Your task to perform on an android device: toggle data saver in the chrome app Image 0: 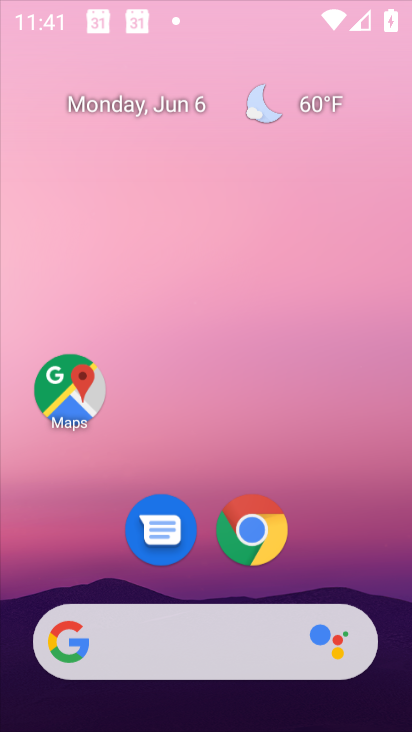
Step 0: press home button
Your task to perform on an android device: toggle data saver in the chrome app Image 1: 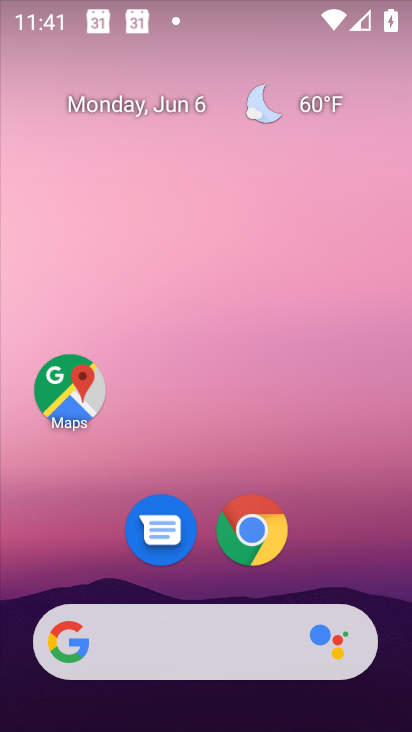
Step 1: click (258, 531)
Your task to perform on an android device: toggle data saver in the chrome app Image 2: 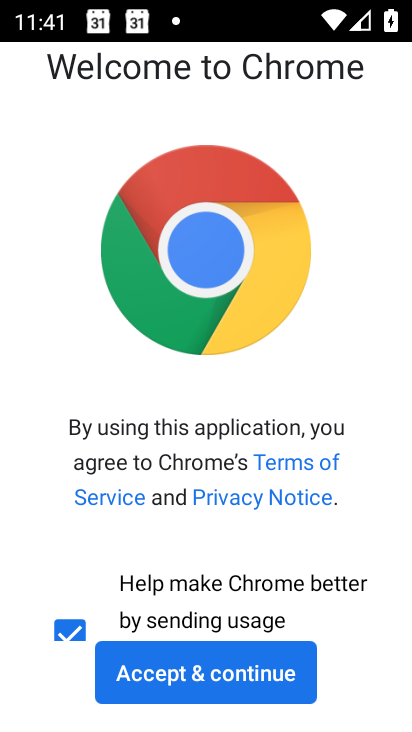
Step 2: click (260, 683)
Your task to perform on an android device: toggle data saver in the chrome app Image 3: 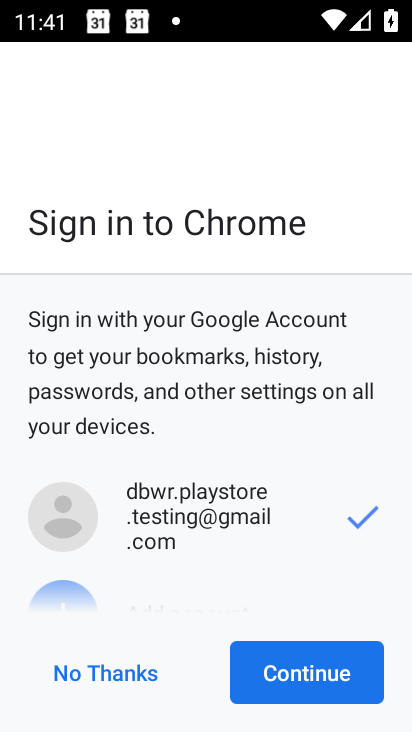
Step 3: click (330, 675)
Your task to perform on an android device: toggle data saver in the chrome app Image 4: 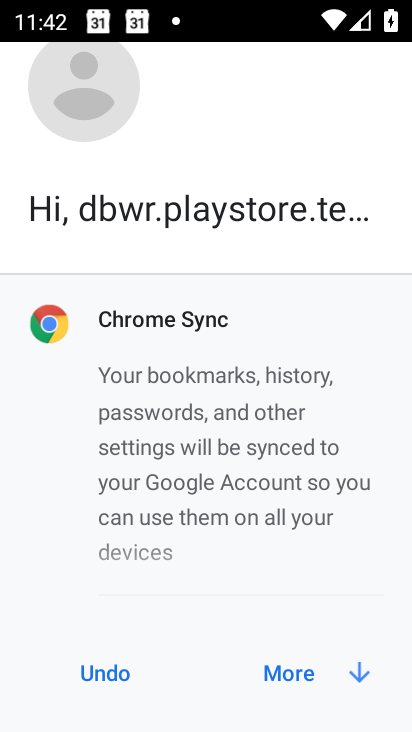
Step 4: click (303, 662)
Your task to perform on an android device: toggle data saver in the chrome app Image 5: 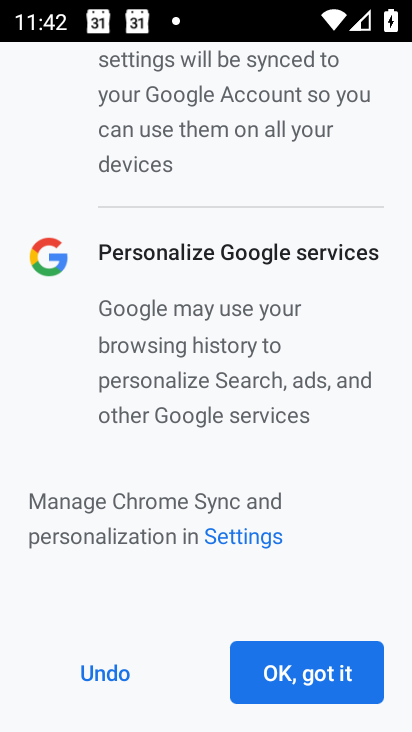
Step 5: click (308, 663)
Your task to perform on an android device: toggle data saver in the chrome app Image 6: 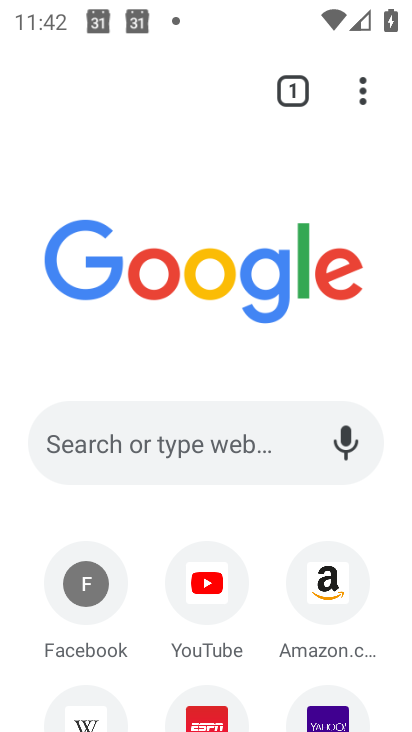
Step 6: click (359, 79)
Your task to perform on an android device: toggle data saver in the chrome app Image 7: 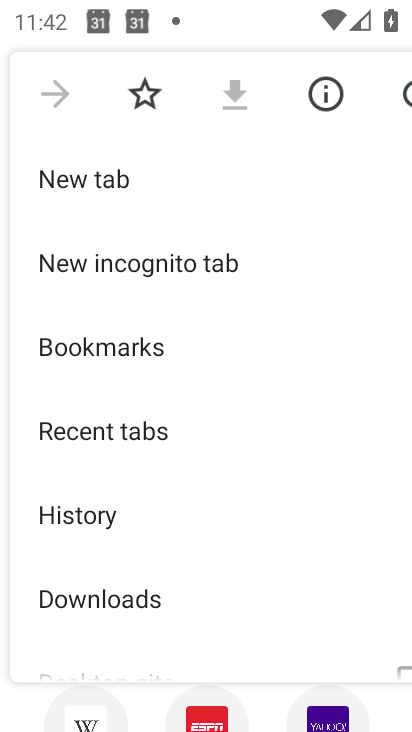
Step 7: drag from (241, 573) to (288, 104)
Your task to perform on an android device: toggle data saver in the chrome app Image 8: 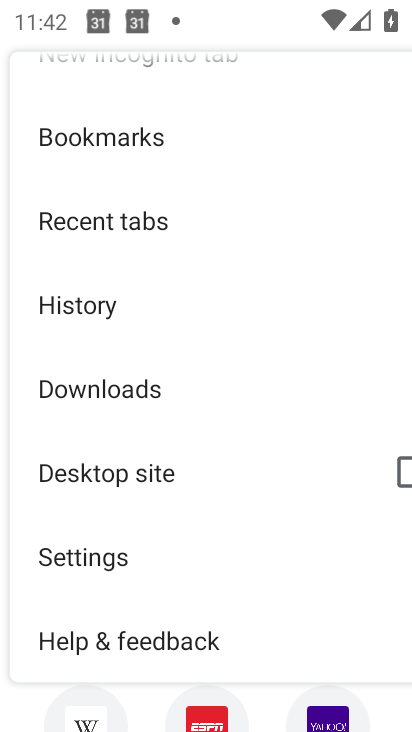
Step 8: click (189, 552)
Your task to perform on an android device: toggle data saver in the chrome app Image 9: 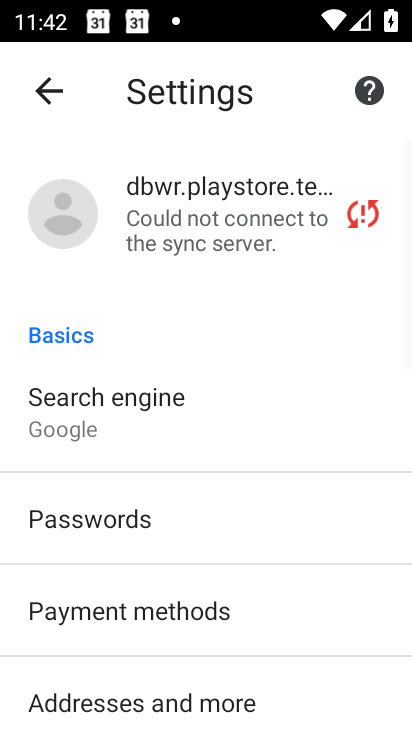
Step 9: drag from (186, 597) to (330, 199)
Your task to perform on an android device: toggle data saver in the chrome app Image 10: 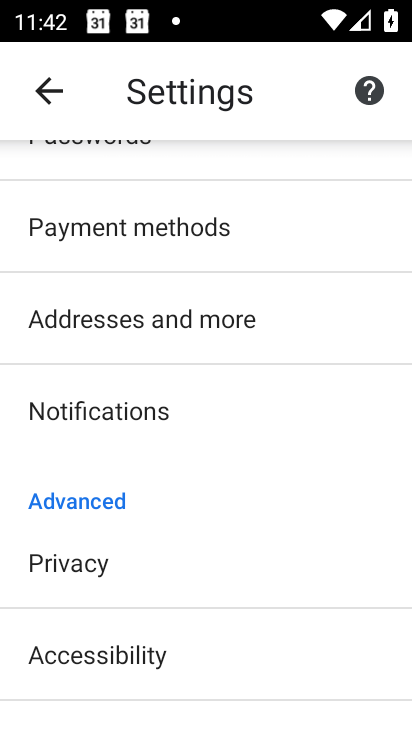
Step 10: drag from (178, 636) to (245, 342)
Your task to perform on an android device: toggle data saver in the chrome app Image 11: 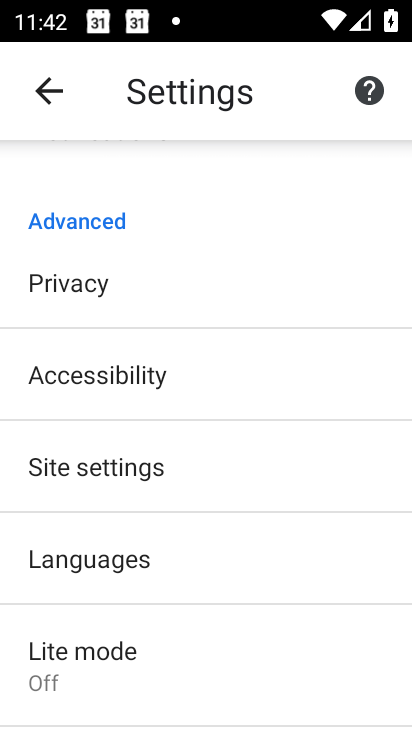
Step 11: click (137, 654)
Your task to perform on an android device: toggle data saver in the chrome app Image 12: 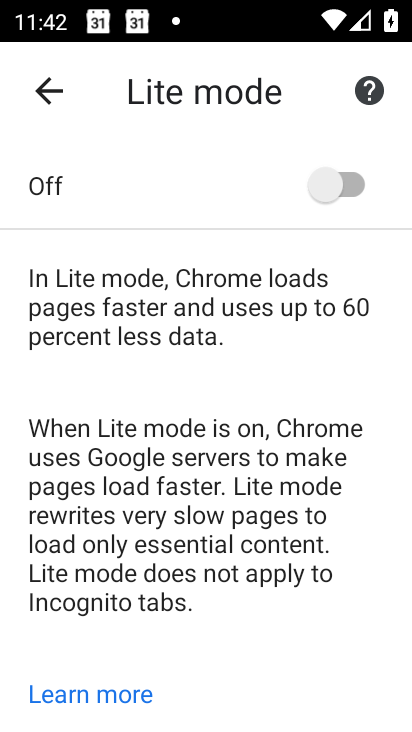
Step 12: click (321, 176)
Your task to perform on an android device: toggle data saver in the chrome app Image 13: 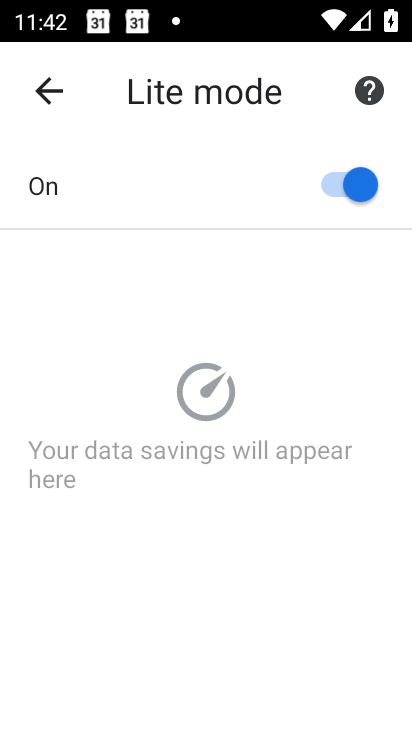
Step 13: task complete